Your task to perform on an android device: allow cookies in the chrome app Image 0: 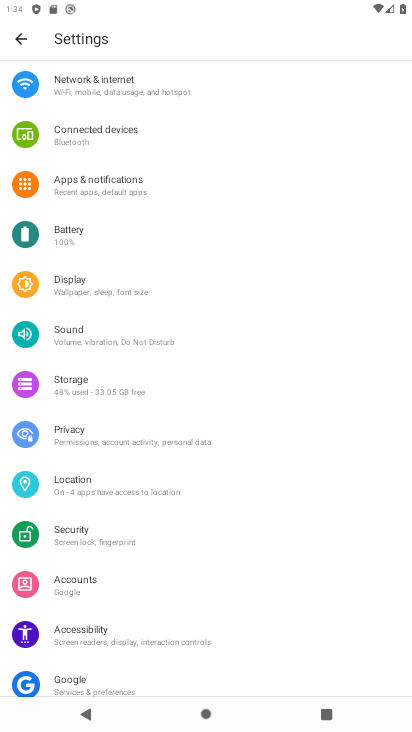
Step 0: press home button
Your task to perform on an android device: allow cookies in the chrome app Image 1: 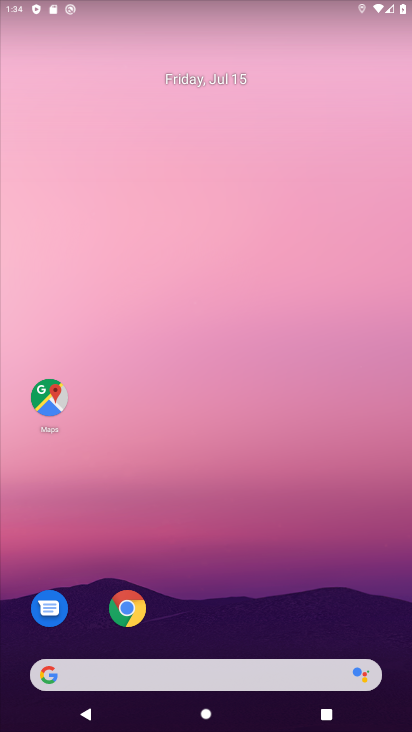
Step 1: click (141, 632)
Your task to perform on an android device: allow cookies in the chrome app Image 2: 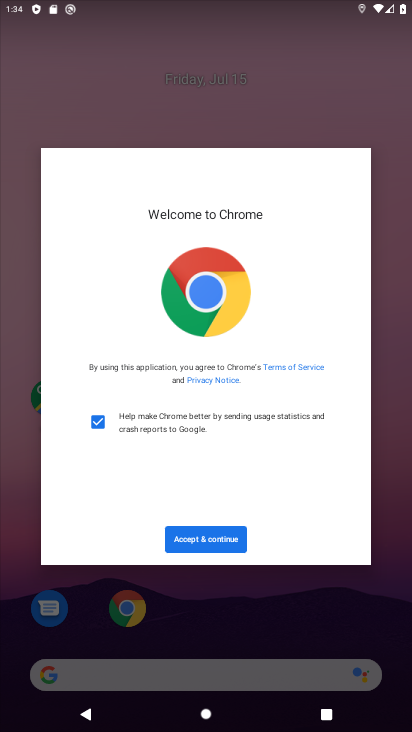
Step 2: click (228, 547)
Your task to perform on an android device: allow cookies in the chrome app Image 3: 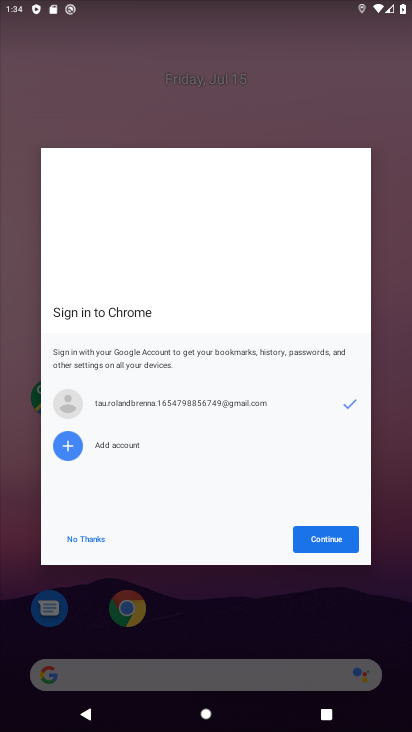
Step 3: click (343, 534)
Your task to perform on an android device: allow cookies in the chrome app Image 4: 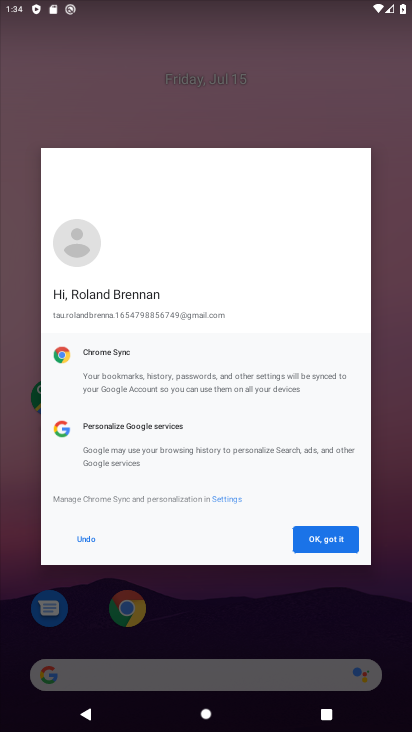
Step 4: click (343, 528)
Your task to perform on an android device: allow cookies in the chrome app Image 5: 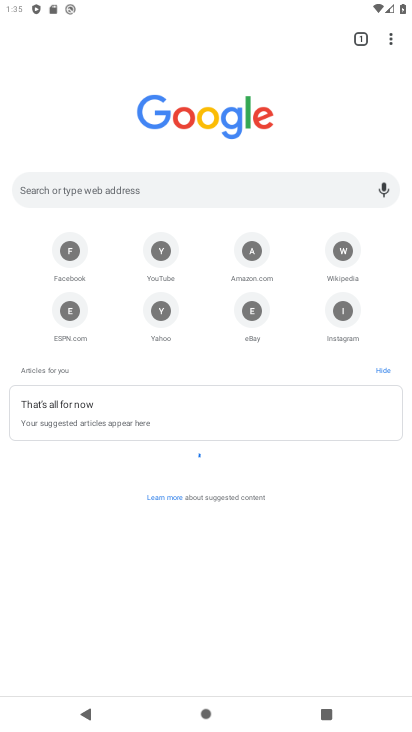
Step 5: drag from (389, 34) to (277, 332)
Your task to perform on an android device: allow cookies in the chrome app Image 6: 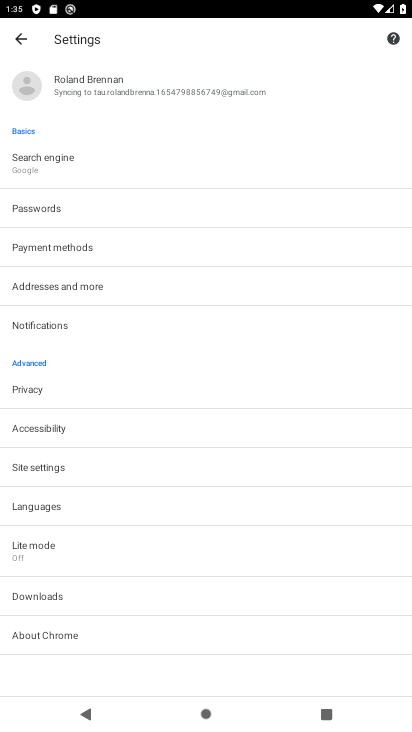
Step 6: click (63, 465)
Your task to perform on an android device: allow cookies in the chrome app Image 7: 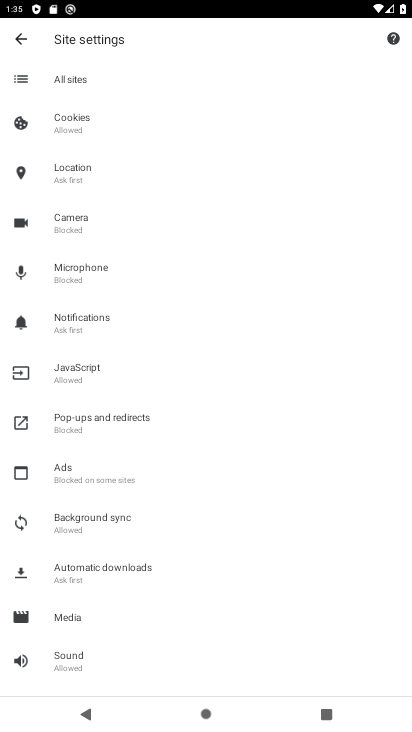
Step 7: click (118, 129)
Your task to perform on an android device: allow cookies in the chrome app Image 8: 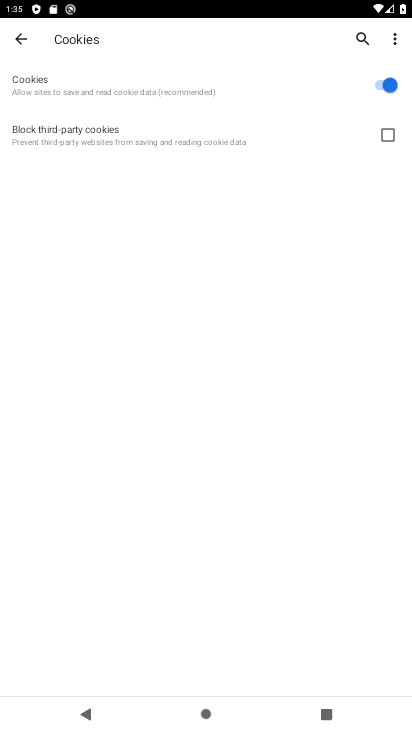
Step 8: task complete